Your task to perform on an android device: When is my next appointment? Image 0: 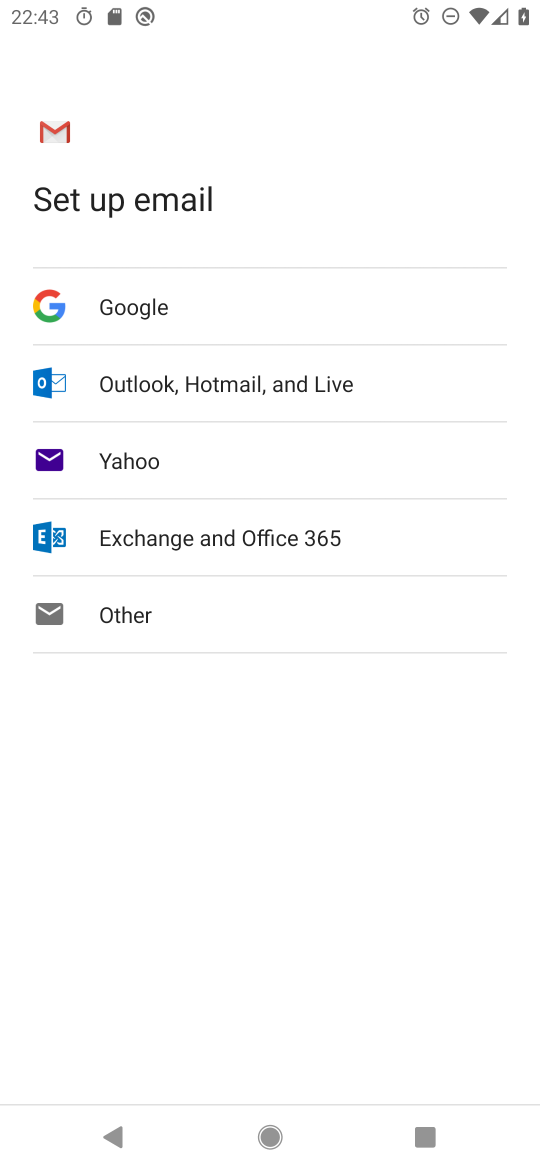
Step 0: drag from (274, 768) to (326, 446)
Your task to perform on an android device: When is my next appointment? Image 1: 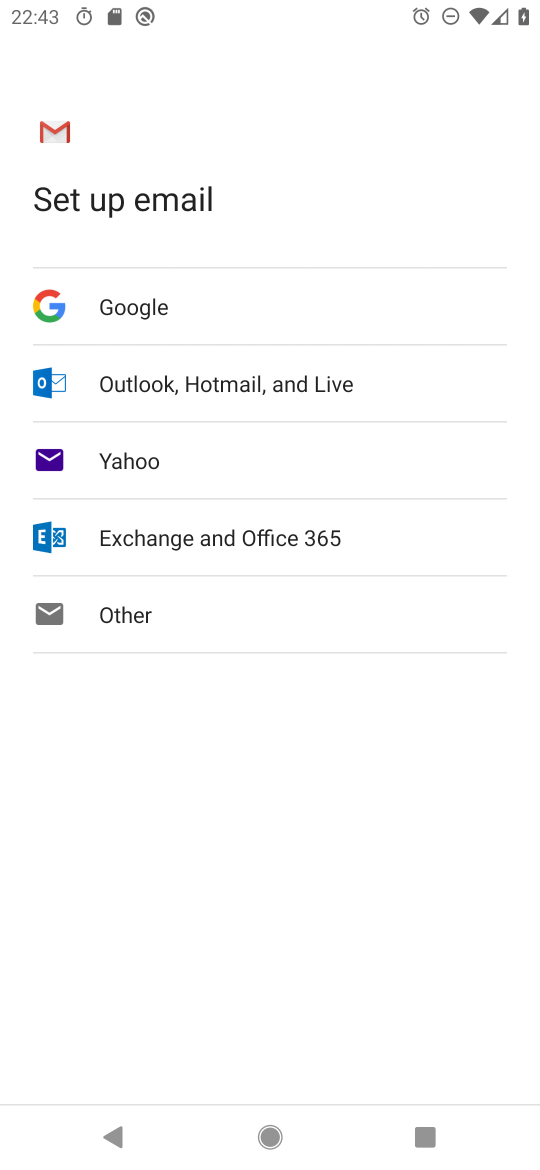
Step 1: press home button
Your task to perform on an android device: When is my next appointment? Image 2: 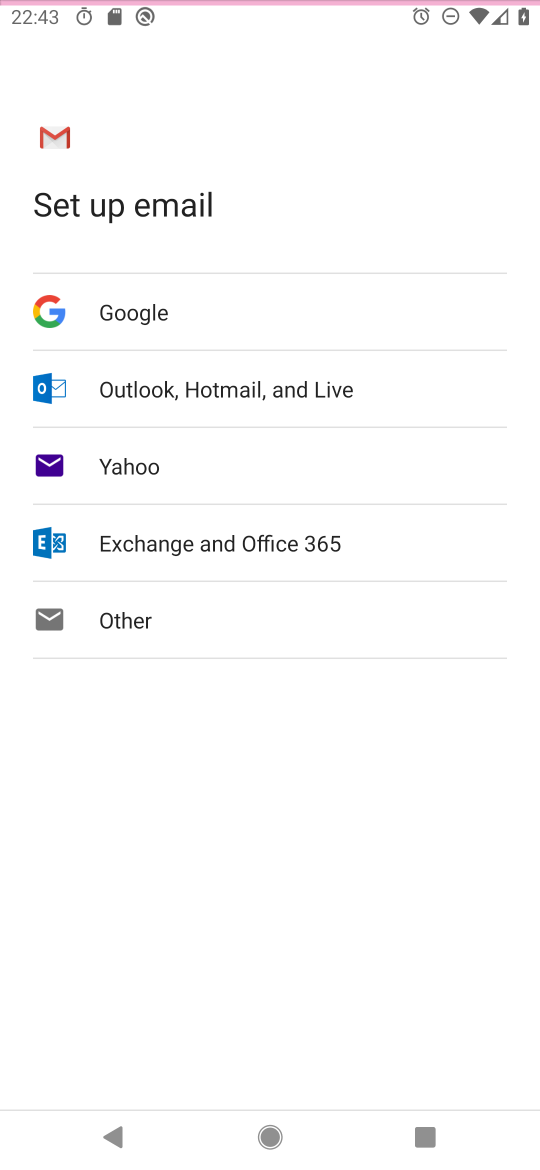
Step 2: drag from (336, 786) to (439, 115)
Your task to perform on an android device: When is my next appointment? Image 3: 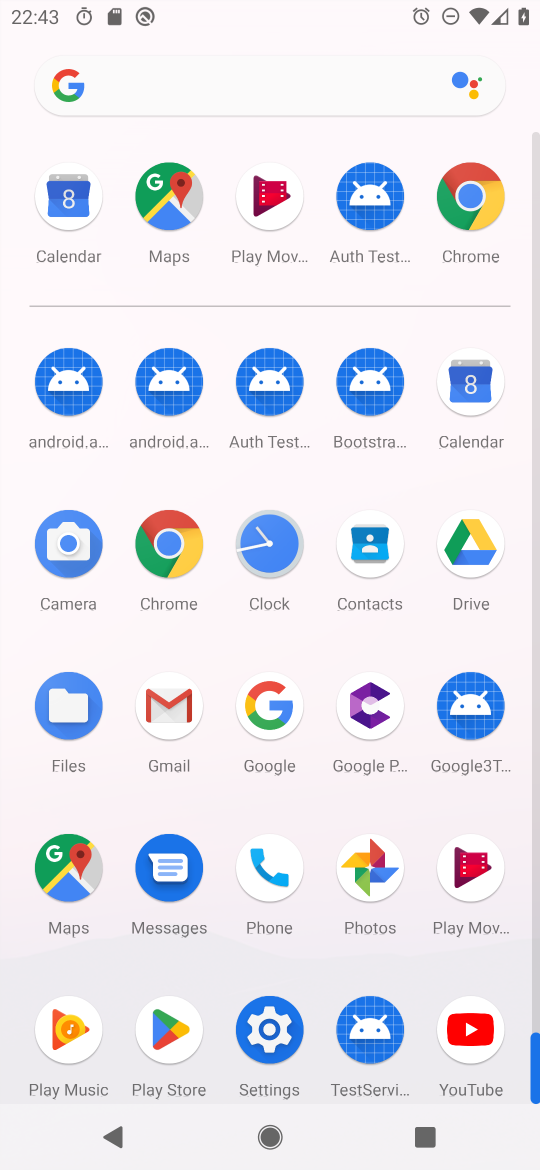
Step 3: click (483, 365)
Your task to perform on an android device: When is my next appointment? Image 4: 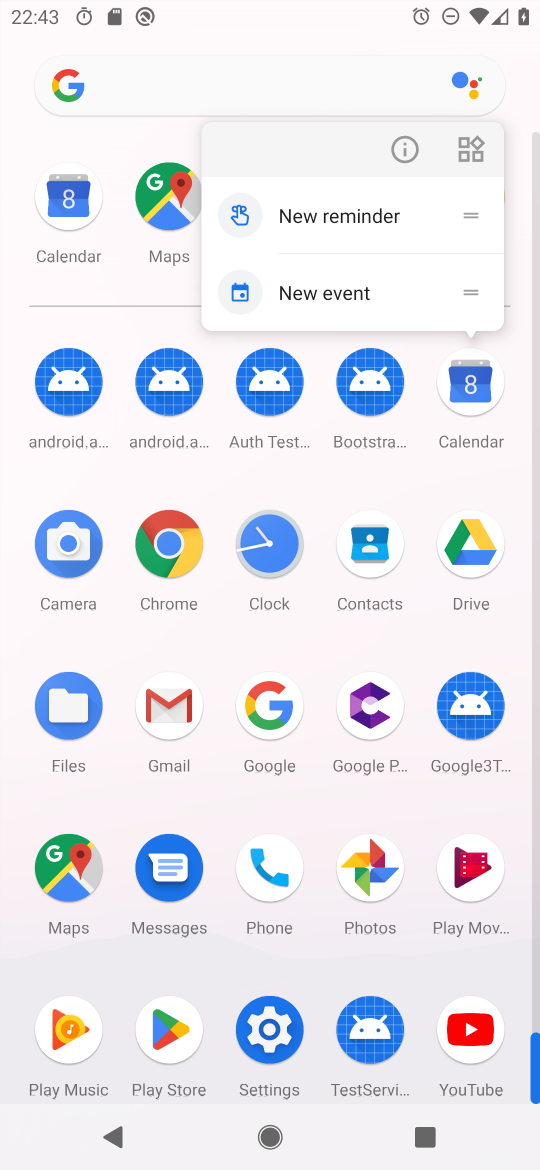
Step 4: click (400, 139)
Your task to perform on an android device: When is my next appointment? Image 5: 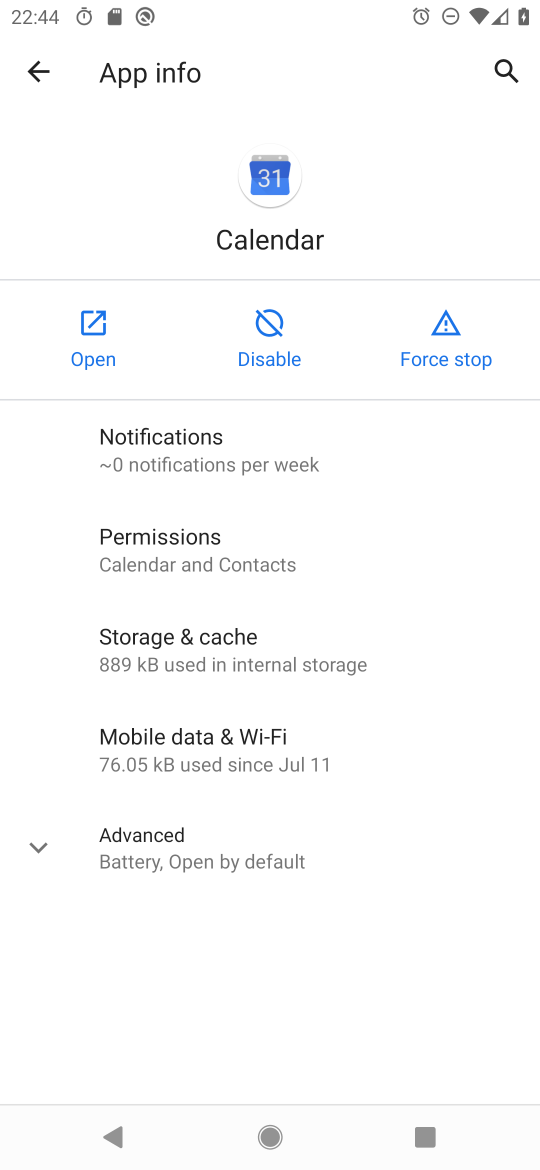
Step 5: click (106, 329)
Your task to perform on an android device: When is my next appointment? Image 6: 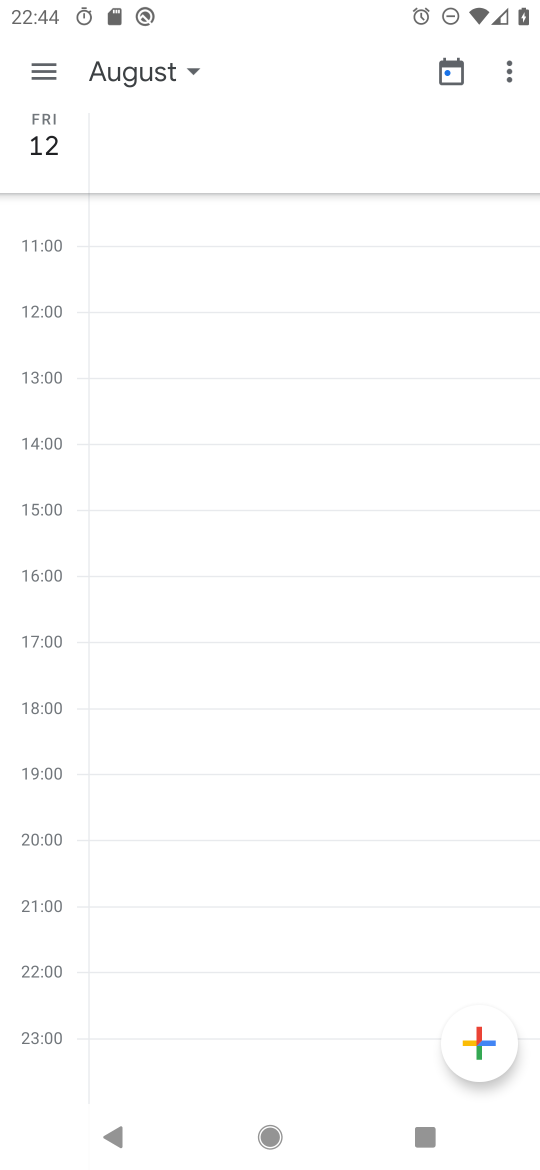
Step 6: click (166, 80)
Your task to perform on an android device: When is my next appointment? Image 7: 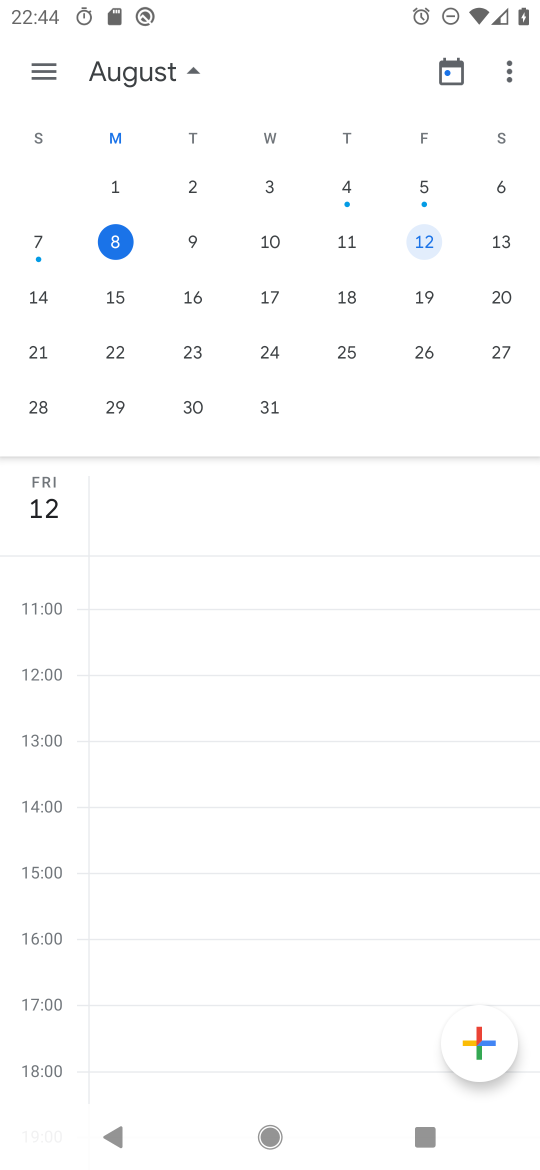
Step 7: click (416, 251)
Your task to perform on an android device: When is my next appointment? Image 8: 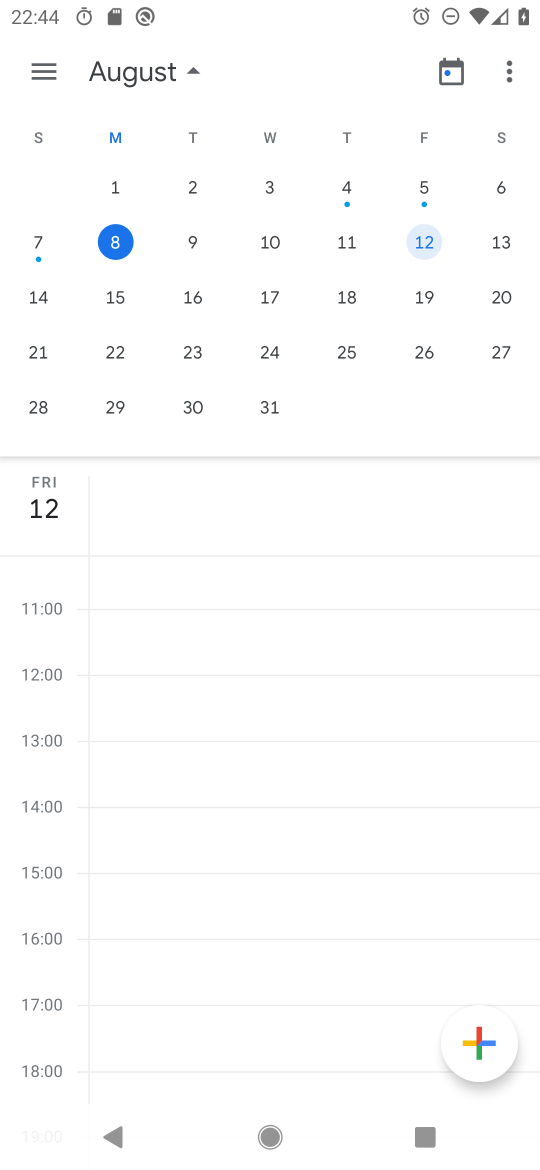
Step 8: click (116, 237)
Your task to perform on an android device: When is my next appointment? Image 9: 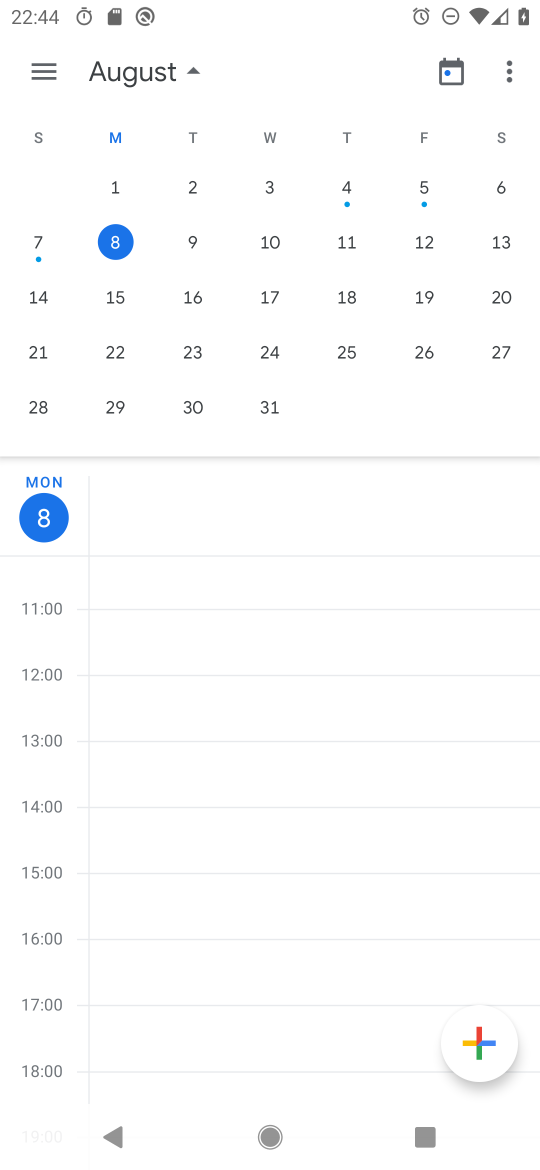
Step 9: click (192, 236)
Your task to perform on an android device: When is my next appointment? Image 10: 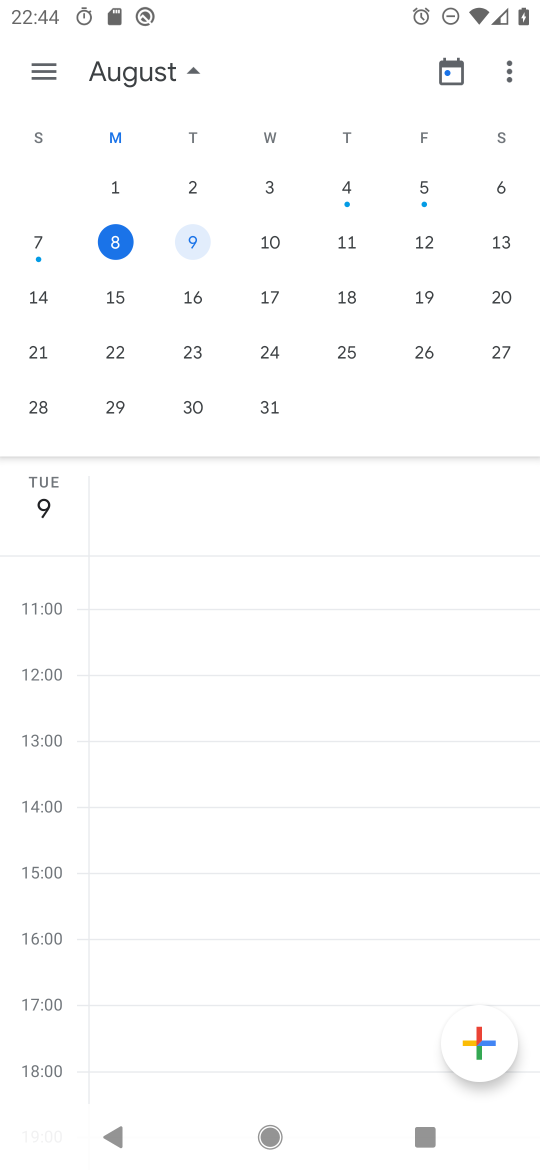
Step 10: task complete